Your task to perform on an android device: Check the weather Image 0: 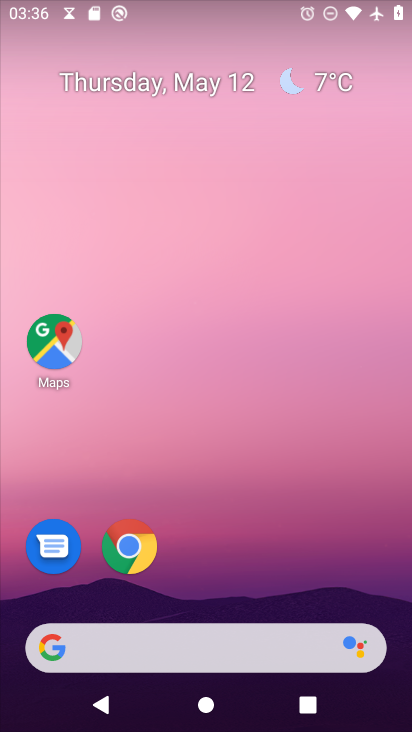
Step 0: click (336, 87)
Your task to perform on an android device: Check the weather Image 1: 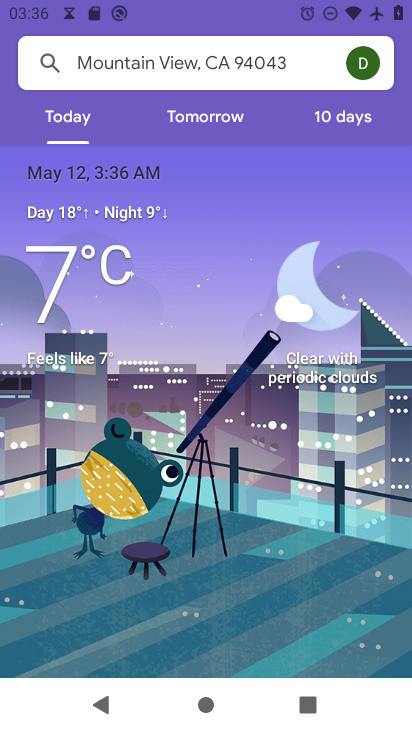
Step 1: task complete